Your task to perform on an android device: Open CNN.com Image 0: 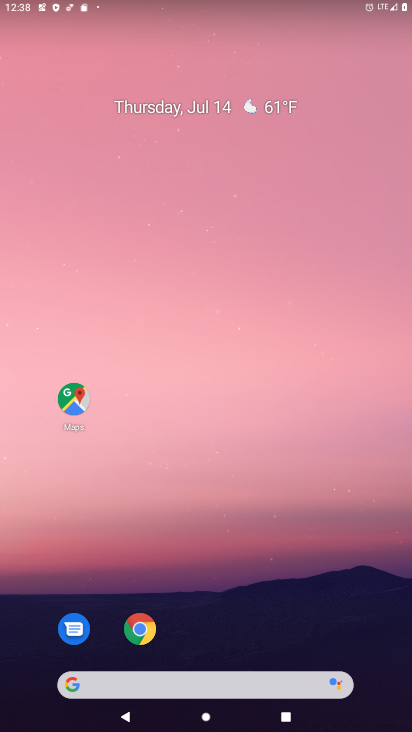
Step 0: click (142, 628)
Your task to perform on an android device: Open CNN.com Image 1: 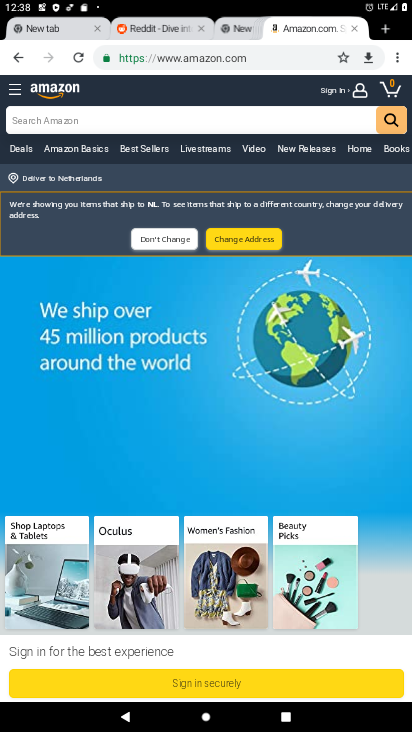
Step 1: click (401, 57)
Your task to perform on an android device: Open CNN.com Image 2: 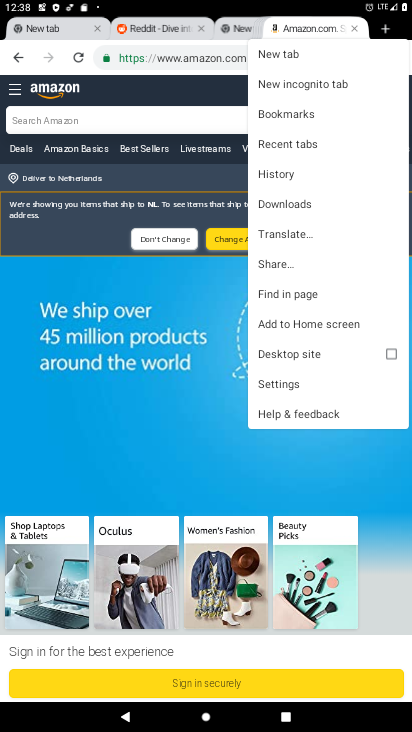
Step 2: click (296, 55)
Your task to perform on an android device: Open CNN.com Image 3: 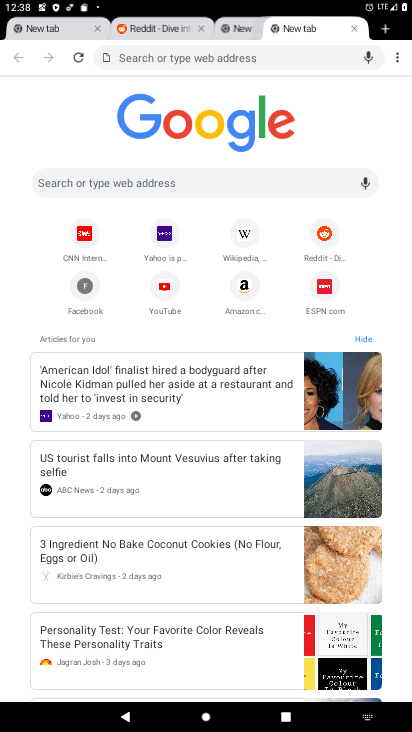
Step 3: click (165, 188)
Your task to perform on an android device: Open CNN.com Image 4: 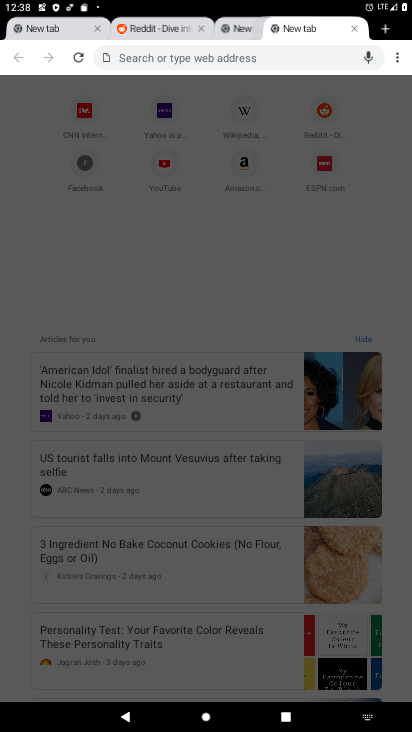
Step 4: type "cnn.com"
Your task to perform on an android device: Open CNN.com Image 5: 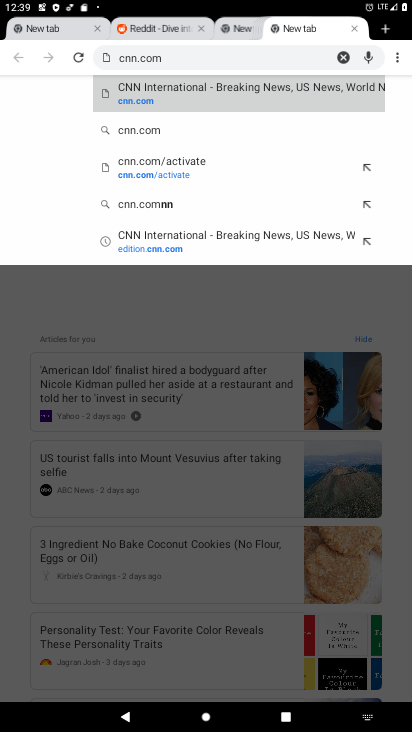
Step 5: click (147, 94)
Your task to perform on an android device: Open CNN.com Image 6: 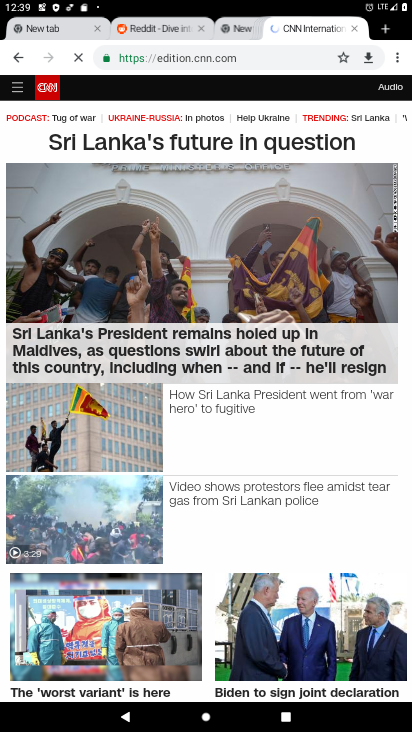
Step 6: task complete